Your task to perform on an android device: turn on airplane mode Image 0: 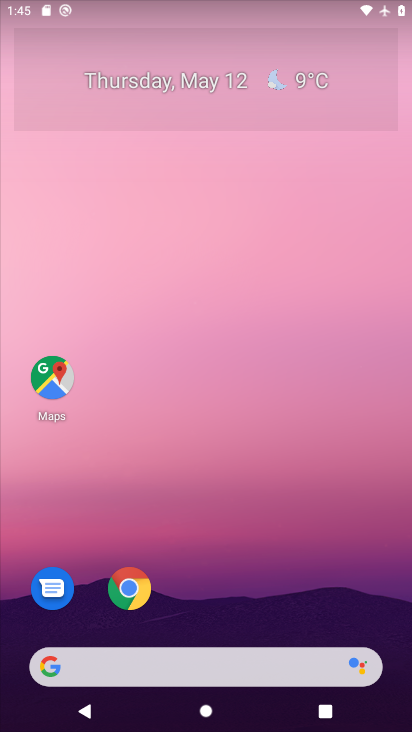
Step 0: drag from (261, 585) to (345, 113)
Your task to perform on an android device: turn on airplane mode Image 1: 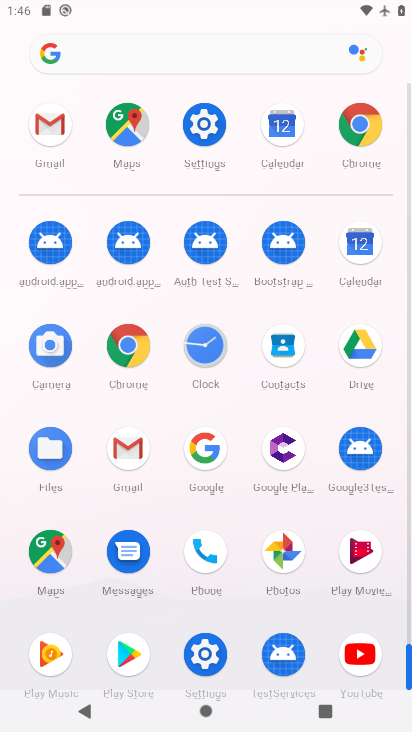
Step 1: click (203, 126)
Your task to perform on an android device: turn on airplane mode Image 2: 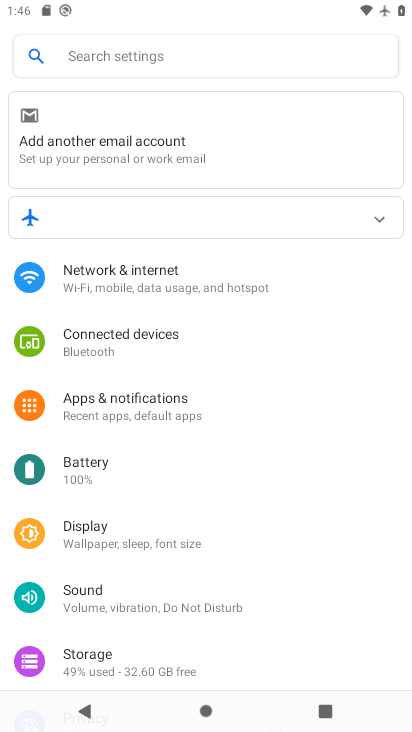
Step 2: click (100, 288)
Your task to perform on an android device: turn on airplane mode Image 3: 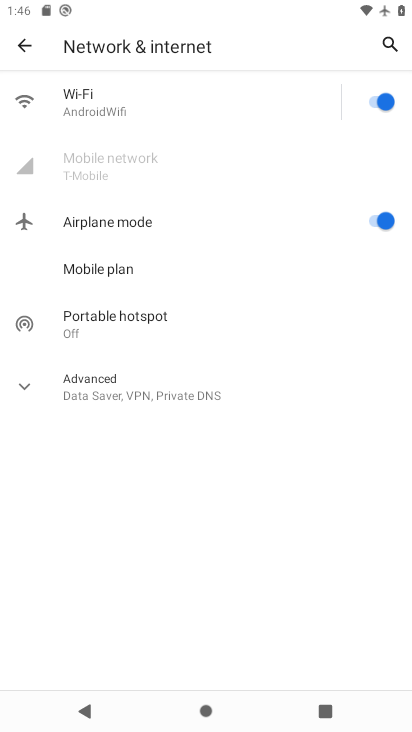
Step 3: task complete